Your task to perform on an android device: Open calendar and show me the third week of next month Image 0: 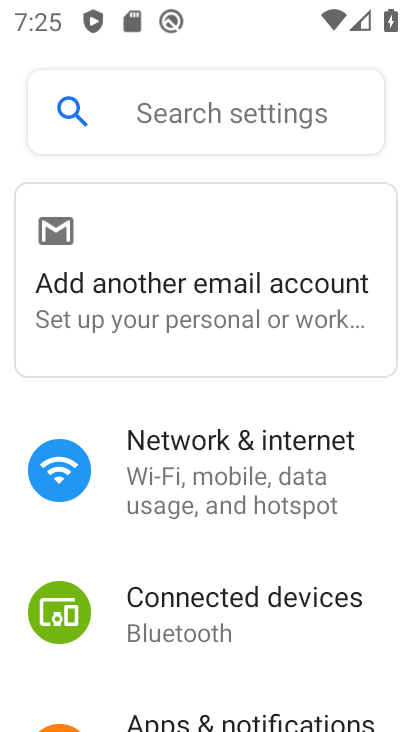
Step 0: press home button
Your task to perform on an android device: Open calendar and show me the third week of next month Image 1: 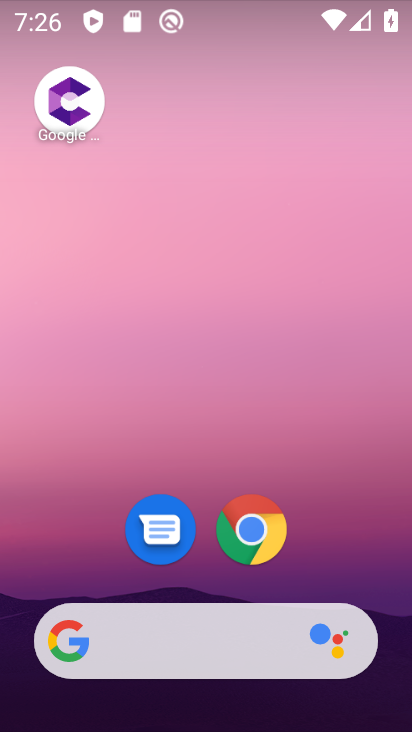
Step 1: drag from (373, 574) to (384, 139)
Your task to perform on an android device: Open calendar and show me the third week of next month Image 2: 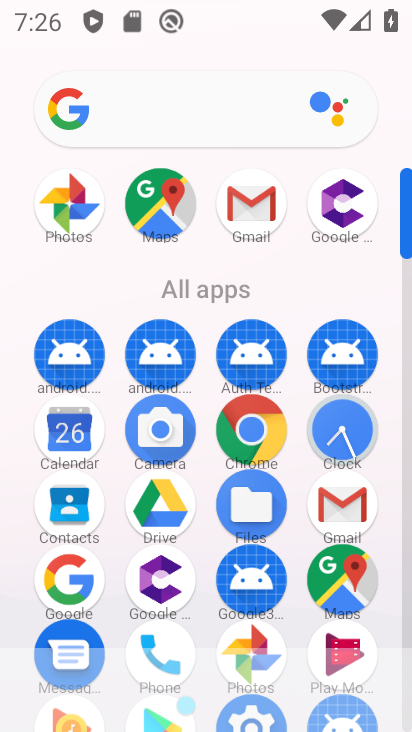
Step 2: click (56, 433)
Your task to perform on an android device: Open calendar and show me the third week of next month Image 3: 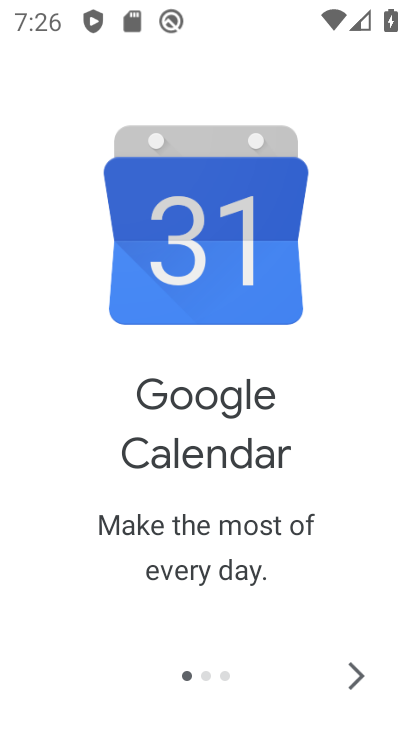
Step 3: click (358, 679)
Your task to perform on an android device: Open calendar and show me the third week of next month Image 4: 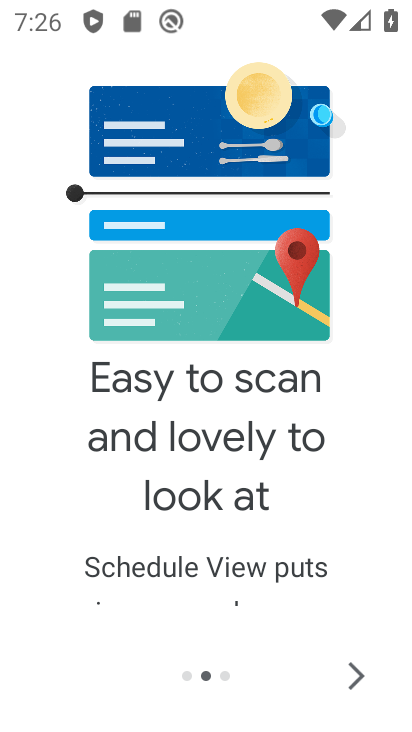
Step 4: click (354, 683)
Your task to perform on an android device: Open calendar and show me the third week of next month Image 5: 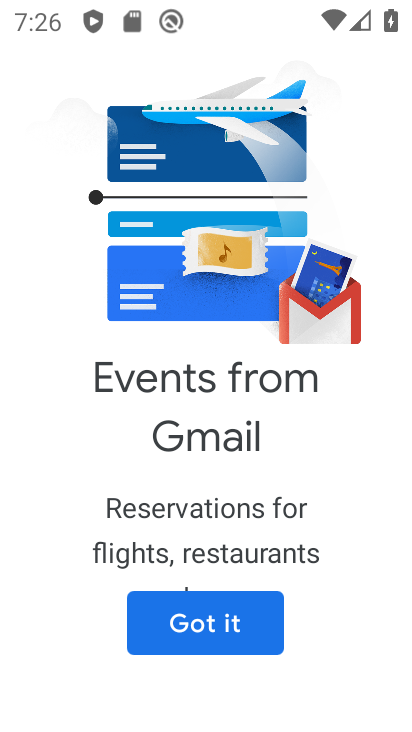
Step 5: click (250, 646)
Your task to perform on an android device: Open calendar and show me the third week of next month Image 6: 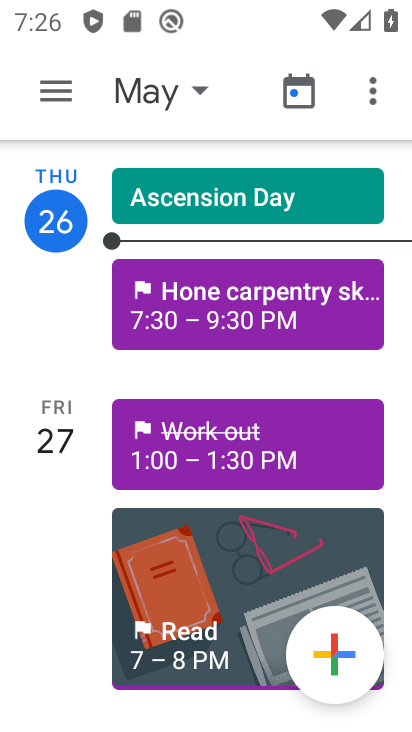
Step 6: click (201, 92)
Your task to perform on an android device: Open calendar and show me the third week of next month Image 7: 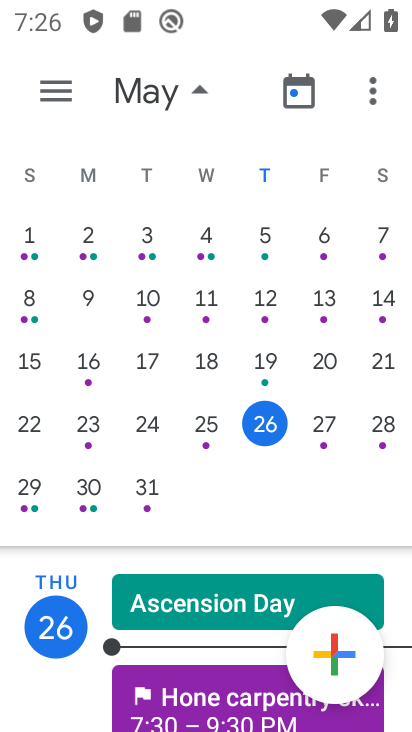
Step 7: drag from (397, 207) to (17, 222)
Your task to perform on an android device: Open calendar and show me the third week of next month Image 8: 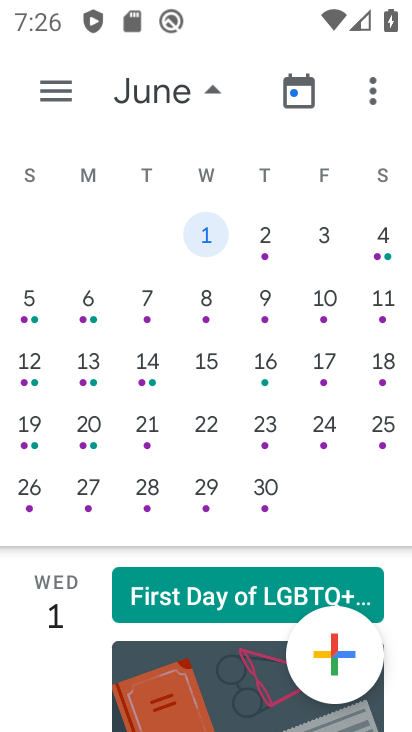
Step 8: click (83, 358)
Your task to perform on an android device: Open calendar and show me the third week of next month Image 9: 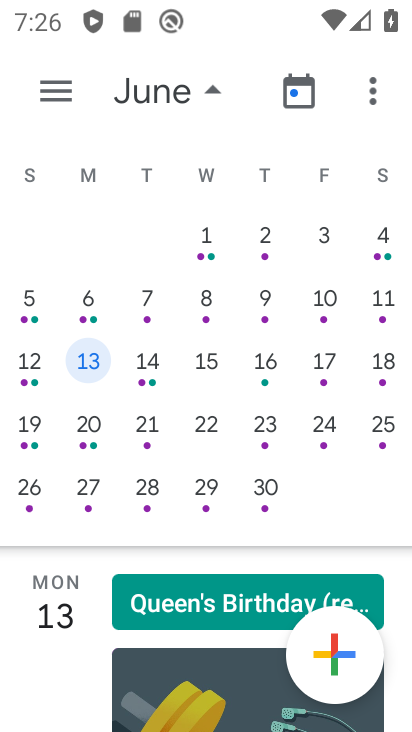
Step 9: task complete